Your task to perform on an android device: Open the map Image 0: 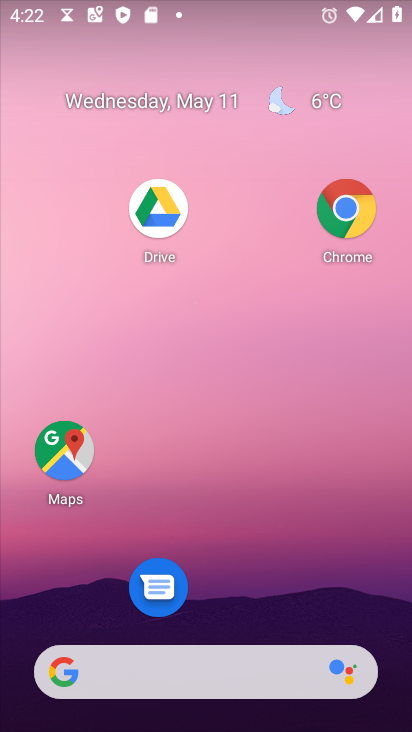
Step 0: click (91, 466)
Your task to perform on an android device: Open the map Image 1: 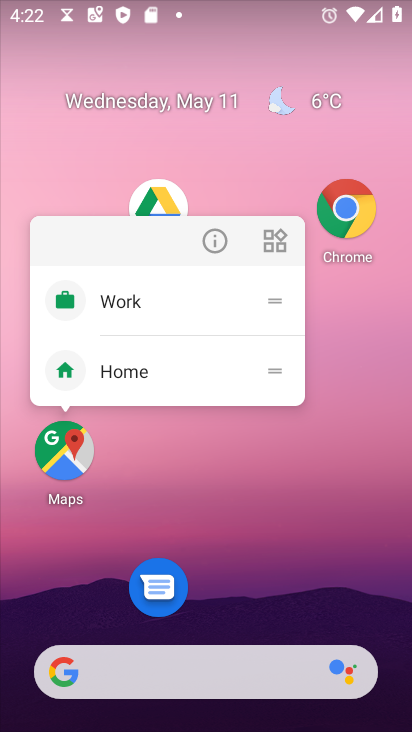
Step 1: click (55, 459)
Your task to perform on an android device: Open the map Image 2: 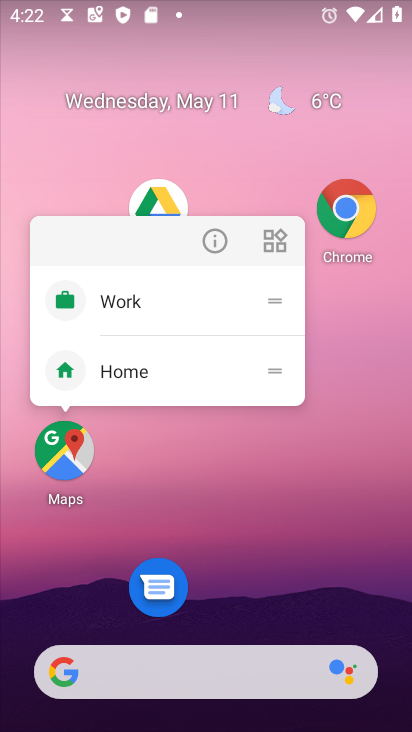
Step 2: click (55, 459)
Your task to perform on an android device: Open the map Image 3: 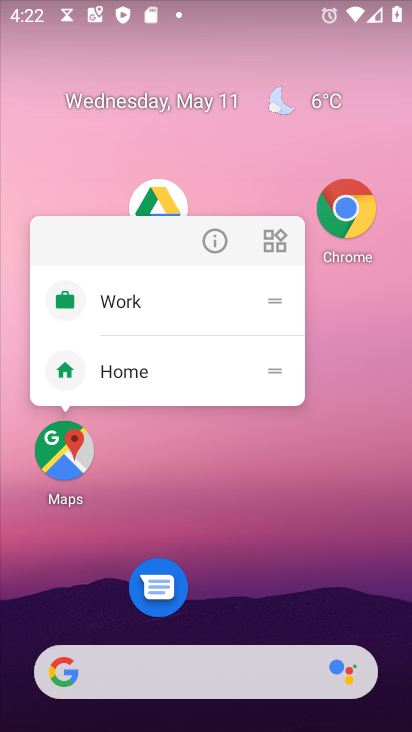
Step 3: click (55, 459)
Your task to perform on an android device: Open the map Image 4: 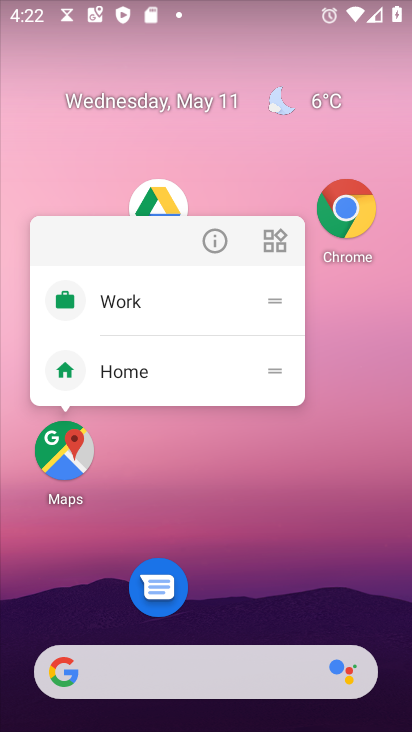
Step 4: click (55, 459)
Your task to perform on an android device: Open the map Image 5: 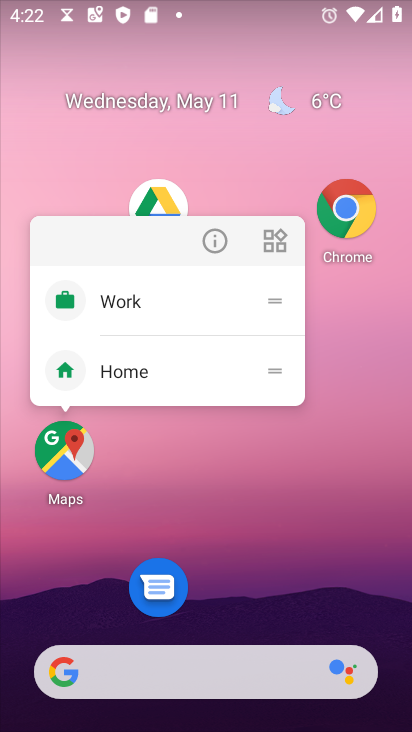
Step 5: click (58, 475)
Your task to perform on an android device: Open the map Image 6: 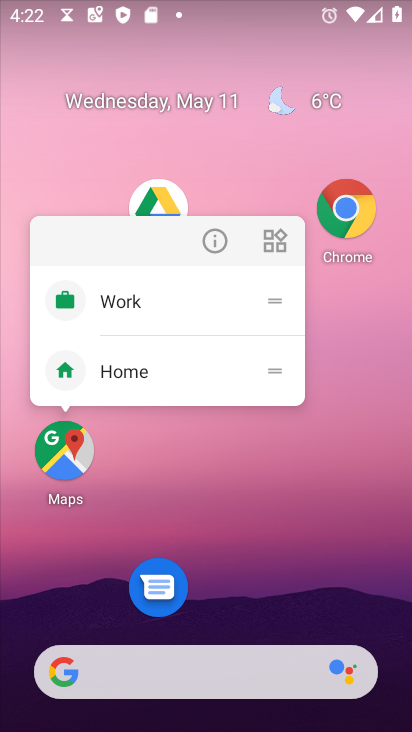
Step 6: click (58, 475)
Your task to perform on an android device: Open the map Image 7: 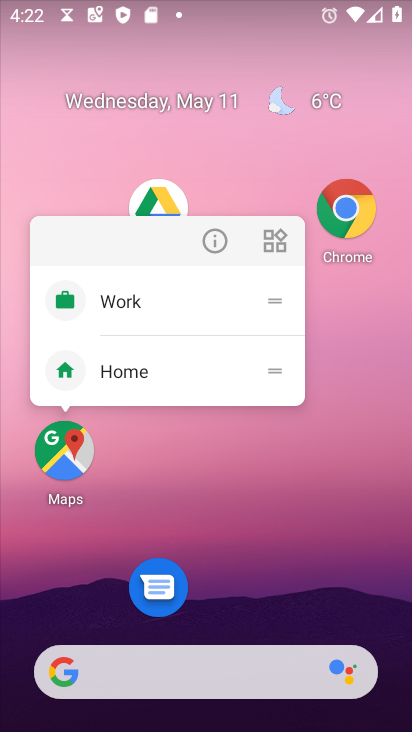
Step 7: click (59, 496)
Your task to perform on an android device: Open the map Image 8: 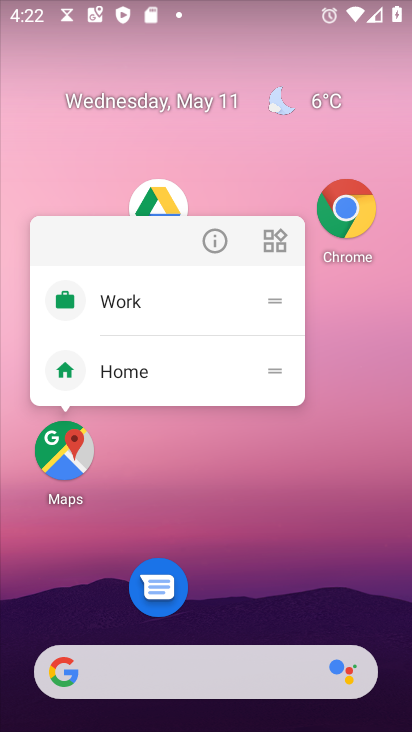
Step 8: click (59, 497)
Your task to perform on an android device: Open the map Image 9: 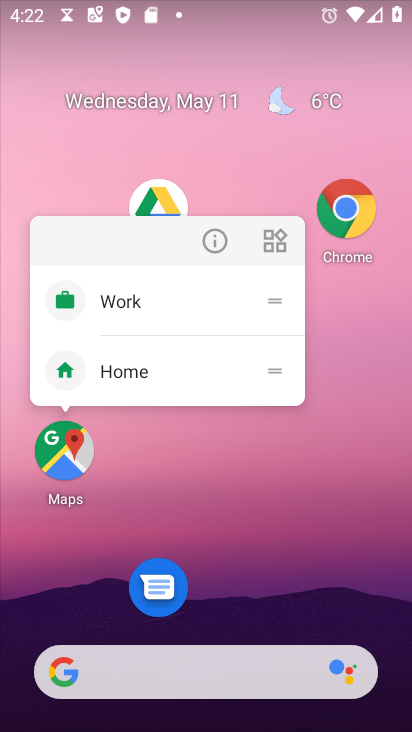
Step 9: click (57, 457)
Your task to perform on an android device: Open the map Image 10: 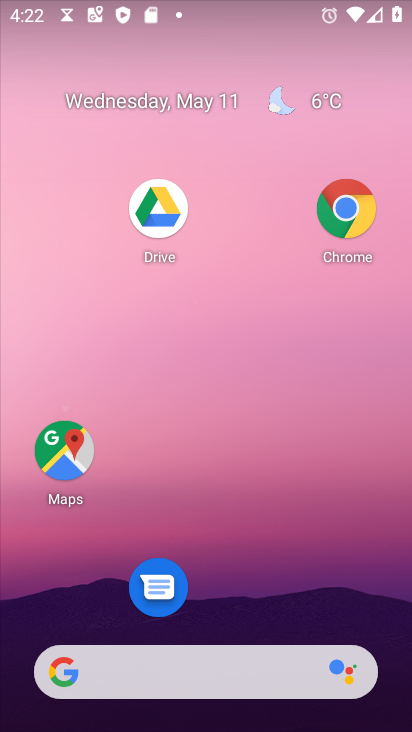
Step 10: click (57, 457)
Your task to perform on an android device: Open the map Image 11: 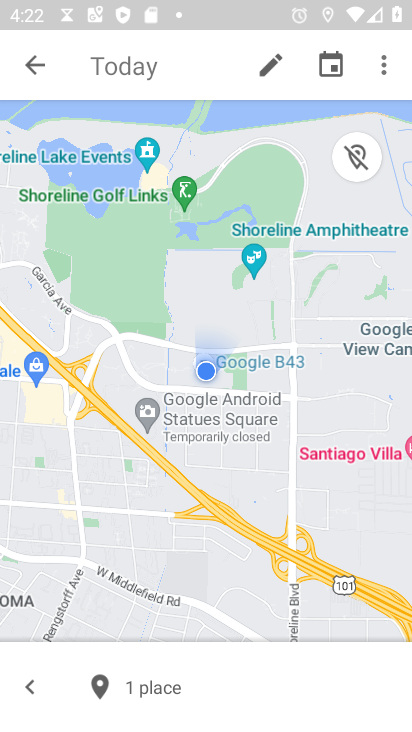
Step 11: task complete